Your task to perform on an android device: Clear the cart on newegg. Search for razer blade on newegg, select the first entry, and add it to the cart. Image 0: 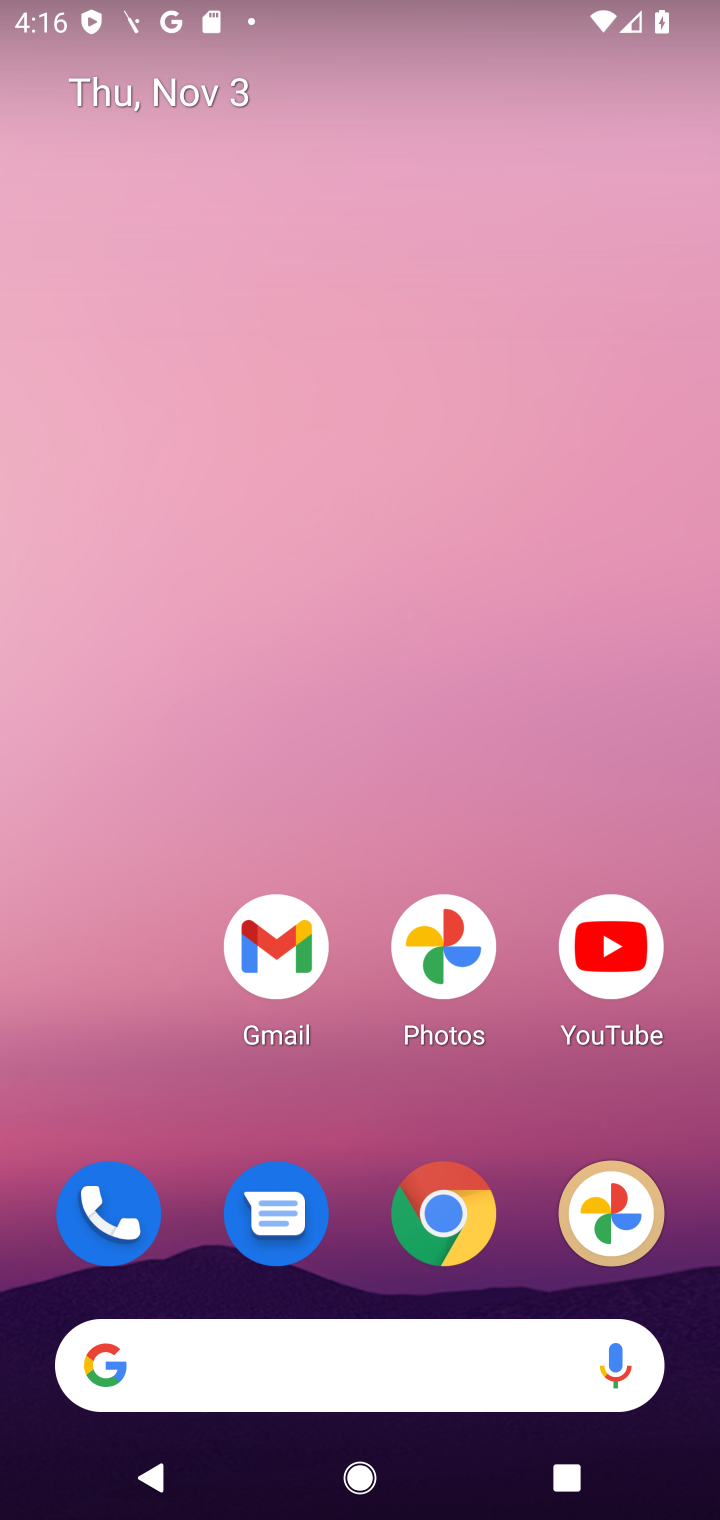
Step 0: click (447, 1226)
Your task to perform on an android device: Clear the cart on newegg. Search for razer blade on newegg, select the first entry, and add it to the cart. Image 1: 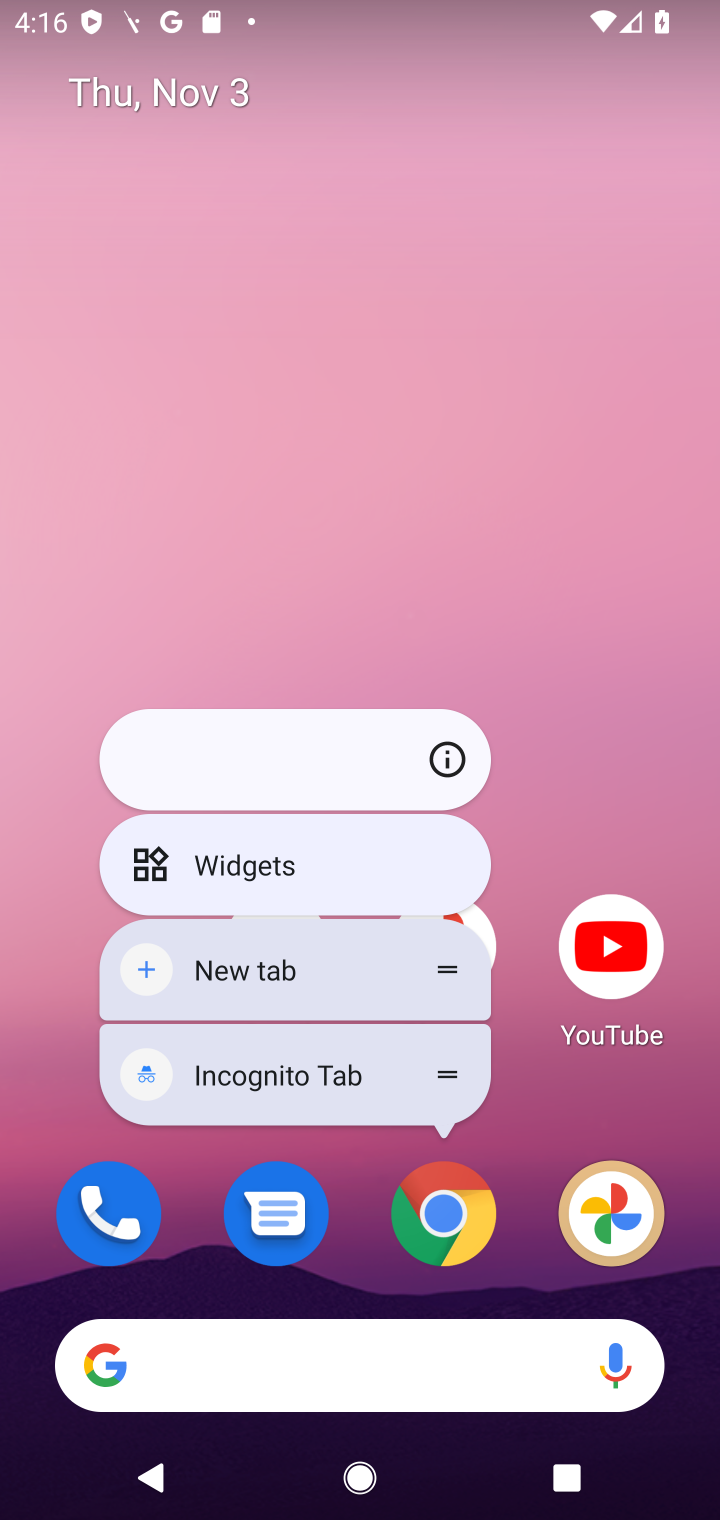
Step 1: click (447, 1226)
Your task to perform on an android device: Clear the cart on newegg. Search for razer blade on newegg, select the first entry, and add it to the cart. Image 2: 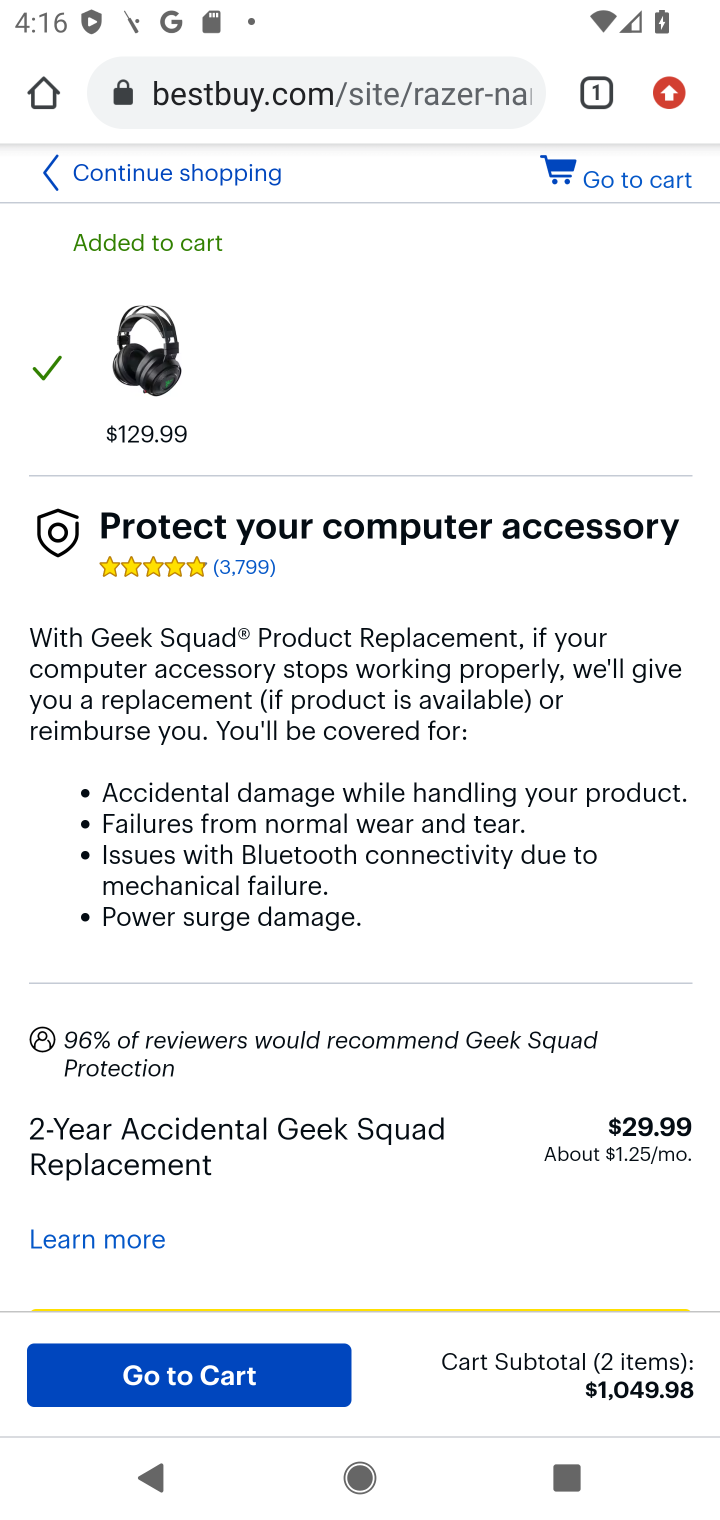
Step 2: click (272, 94)
Your task to perform on an android device: Clear the cart on newegg. Search for razer blade on newegg, select the first entry, and add it to the cart. Image 3: 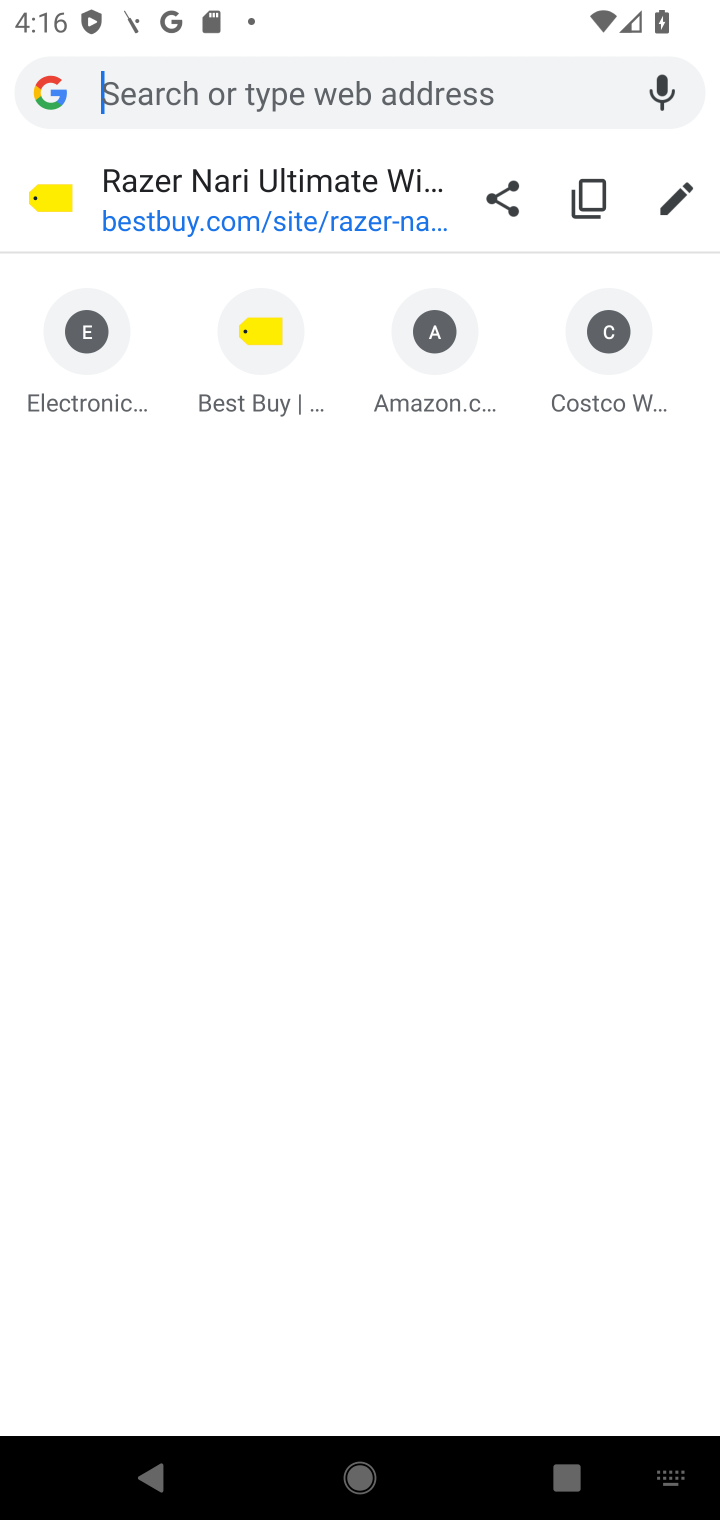
Step 3: type "newegg.com"
Your task to perform on an android device: Clear the cart on newegg. Search for razer blade on newegg, select the first entry, and add it to the cart. Image 4: 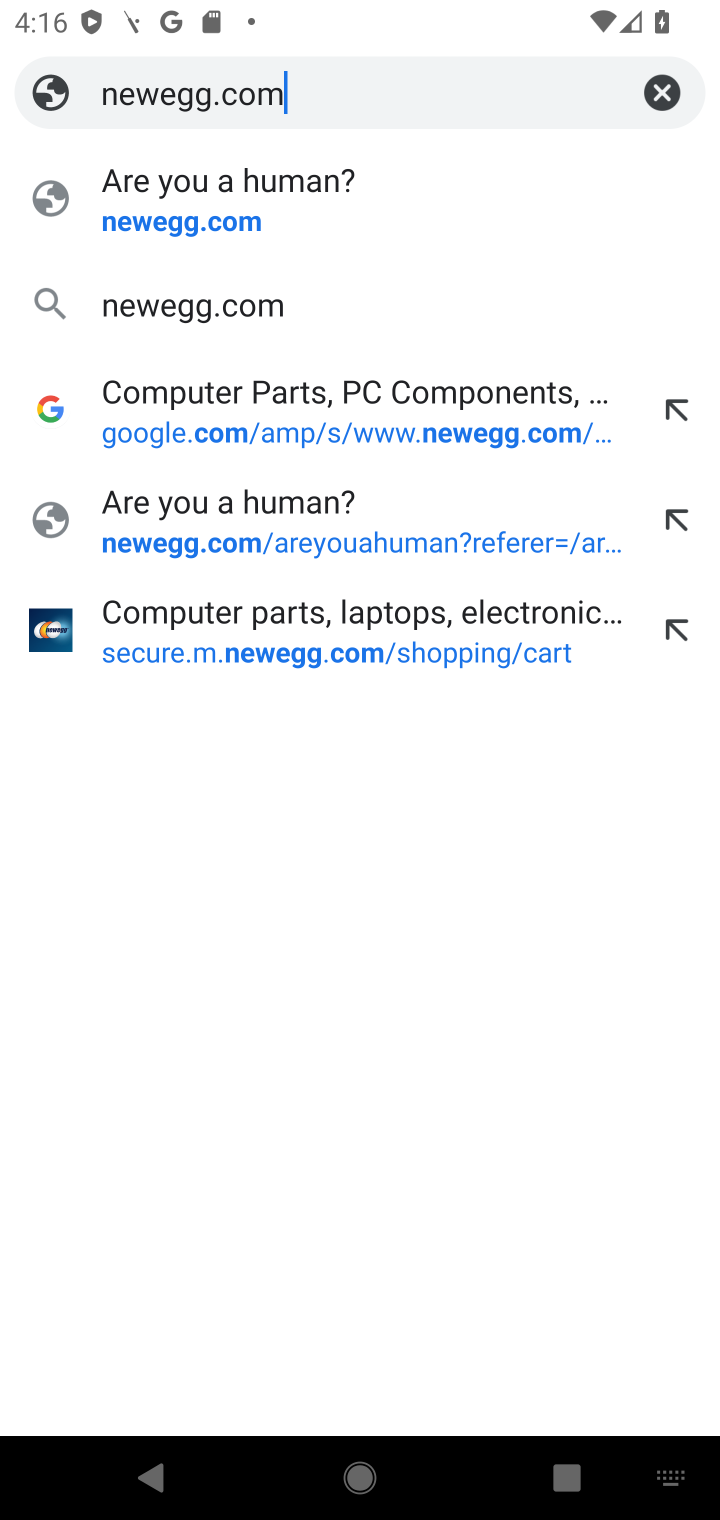
Step 4: click (127, 345)
Your task to perform on an android device: Clear the cart on newegg. Search for razer blade on newegg, select the first entry, and add it to the cart. Image 5: 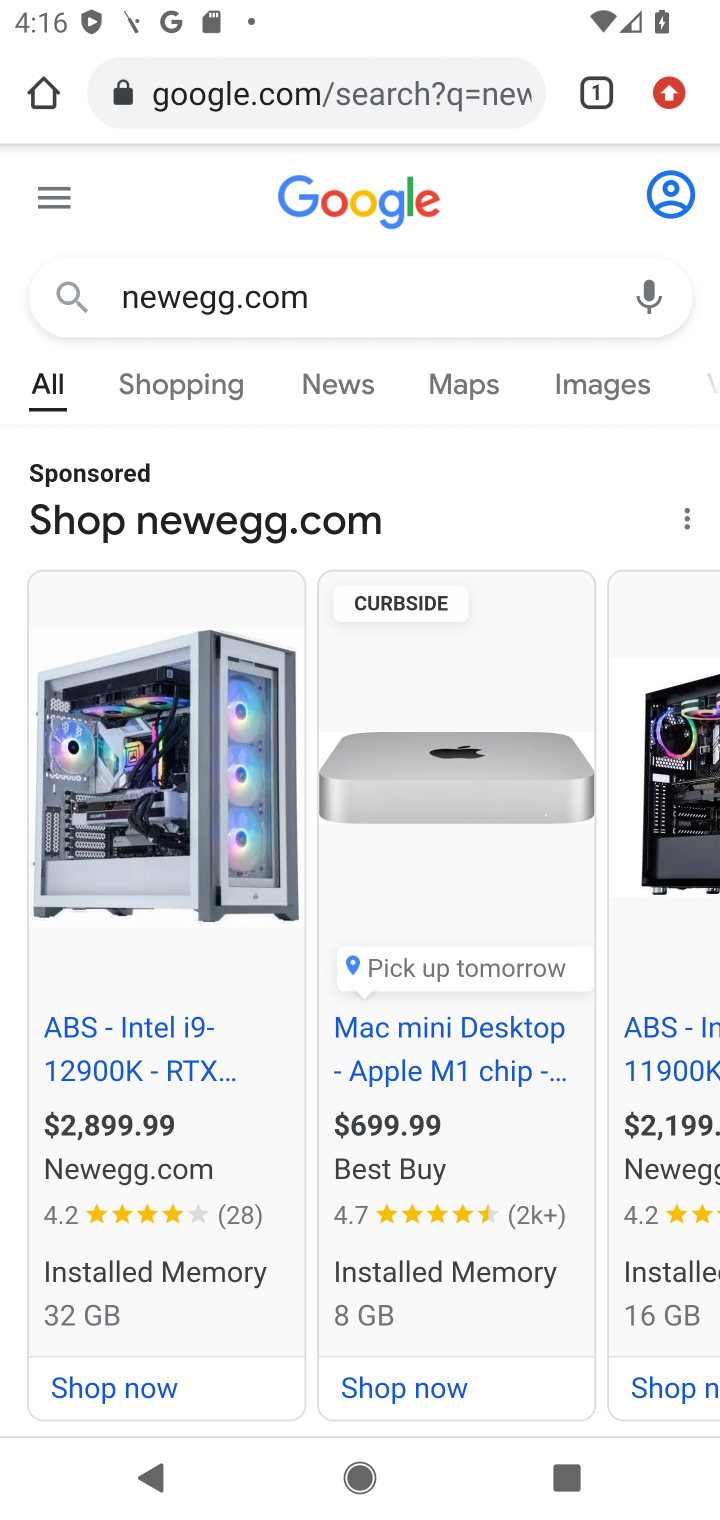
Step 5: drag from (371, 1030) to (373, 332)
Your task to perform on an android device: Clear the cart on newegg. Search for razer blade on newegg, select the first entry, and add it to the cart. Image 6: 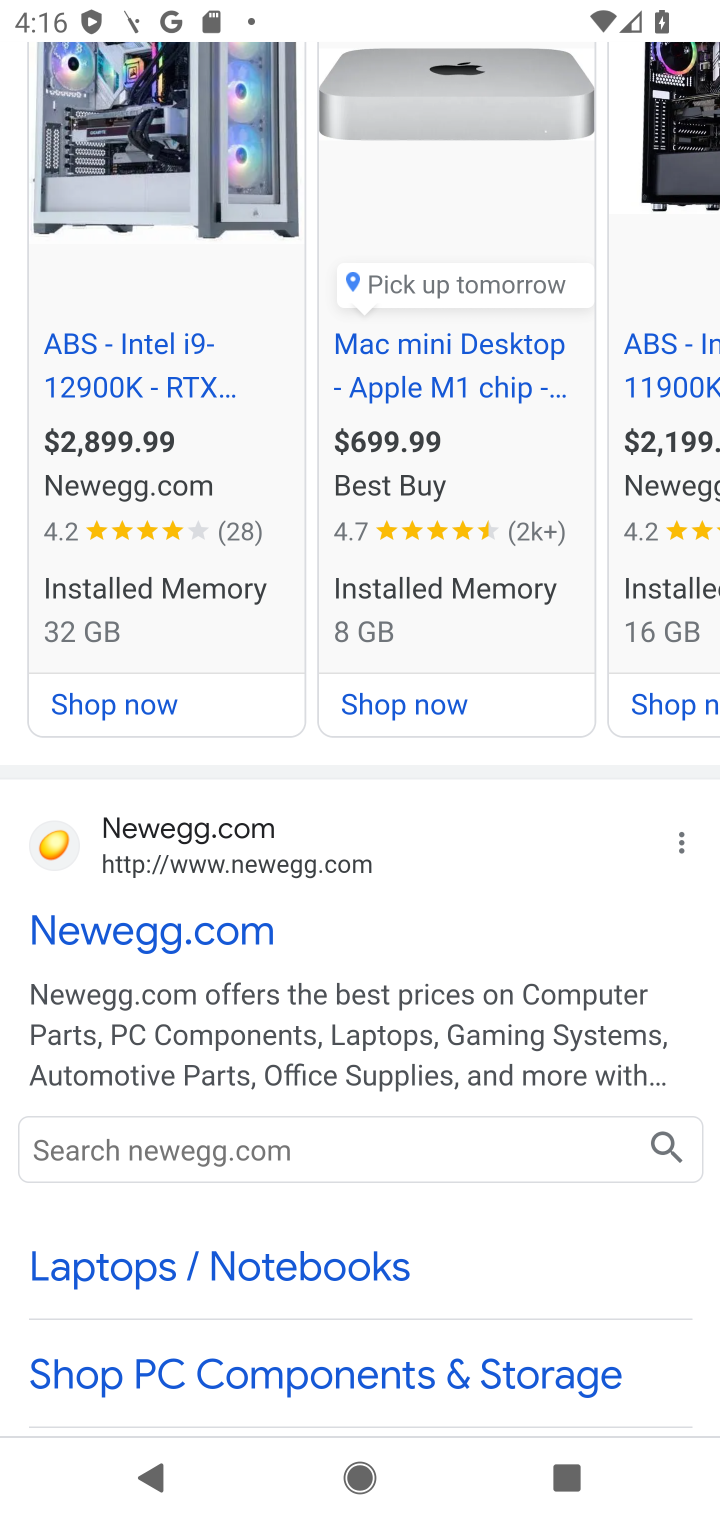
Step 6: click (225, 943)
Your task to perform on an android device: Clear the cart on newegg. Search for razer blade on newegg, select the first entry, and add it to the cart. Image 7: 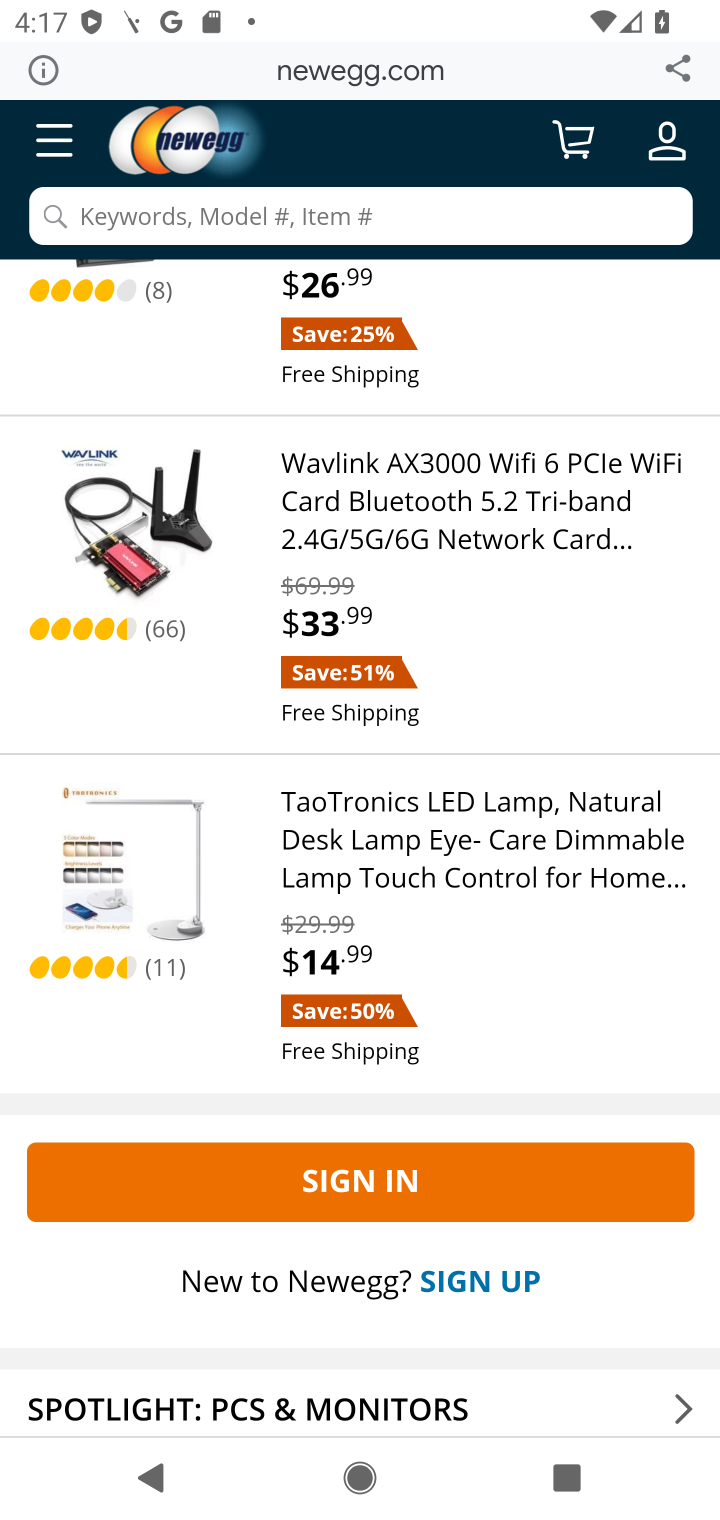
Step 7: click (576, 147)
Your task to perform on an android device: Clear the cart on newegg. Search for razer blade on newegg, select the first entry, and add it to the cart. Image 8: 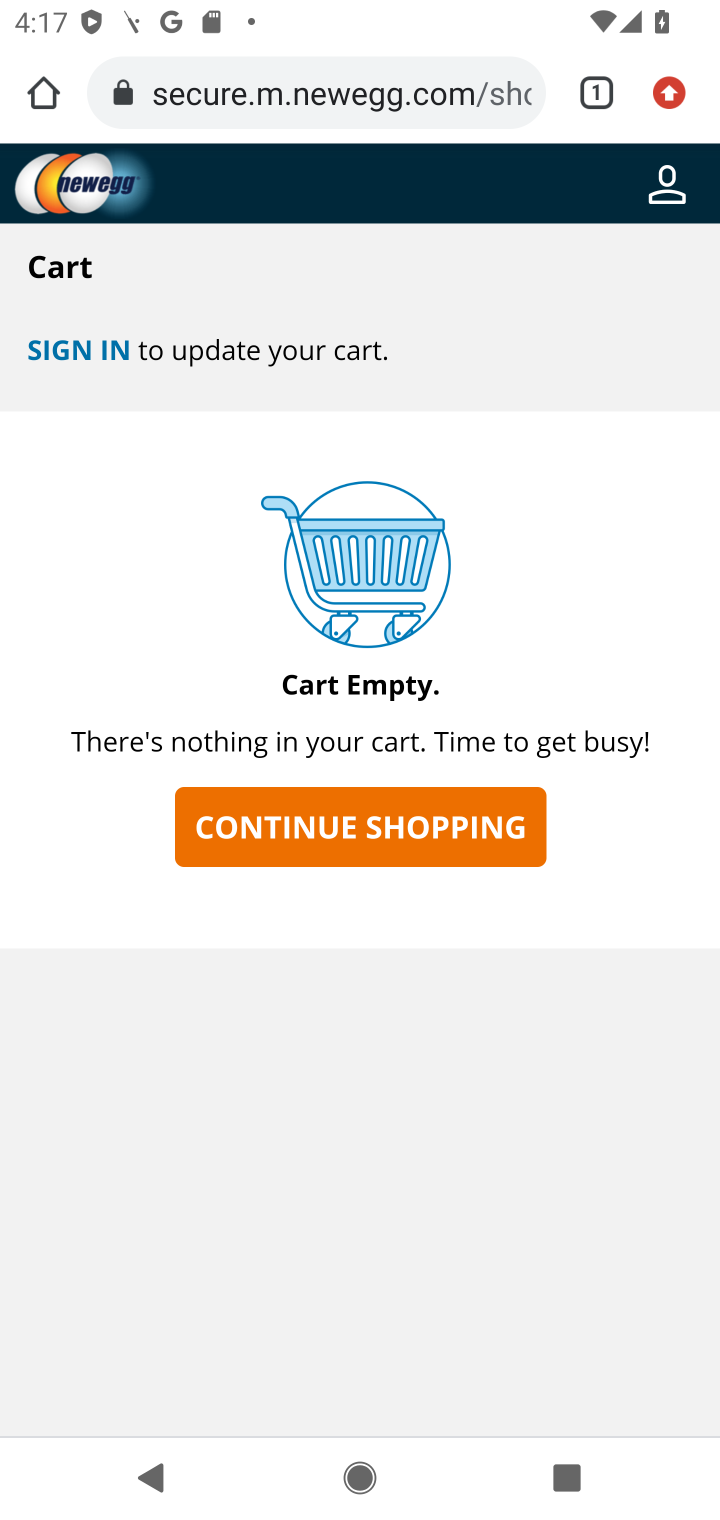
Step 8: drag from (497, 496) to (441, 1048)
Your task to perform on an android device: Clear the cart on newegg. Search for razer blade on newegg, select the first entry, and add it to the cart. Image 9: 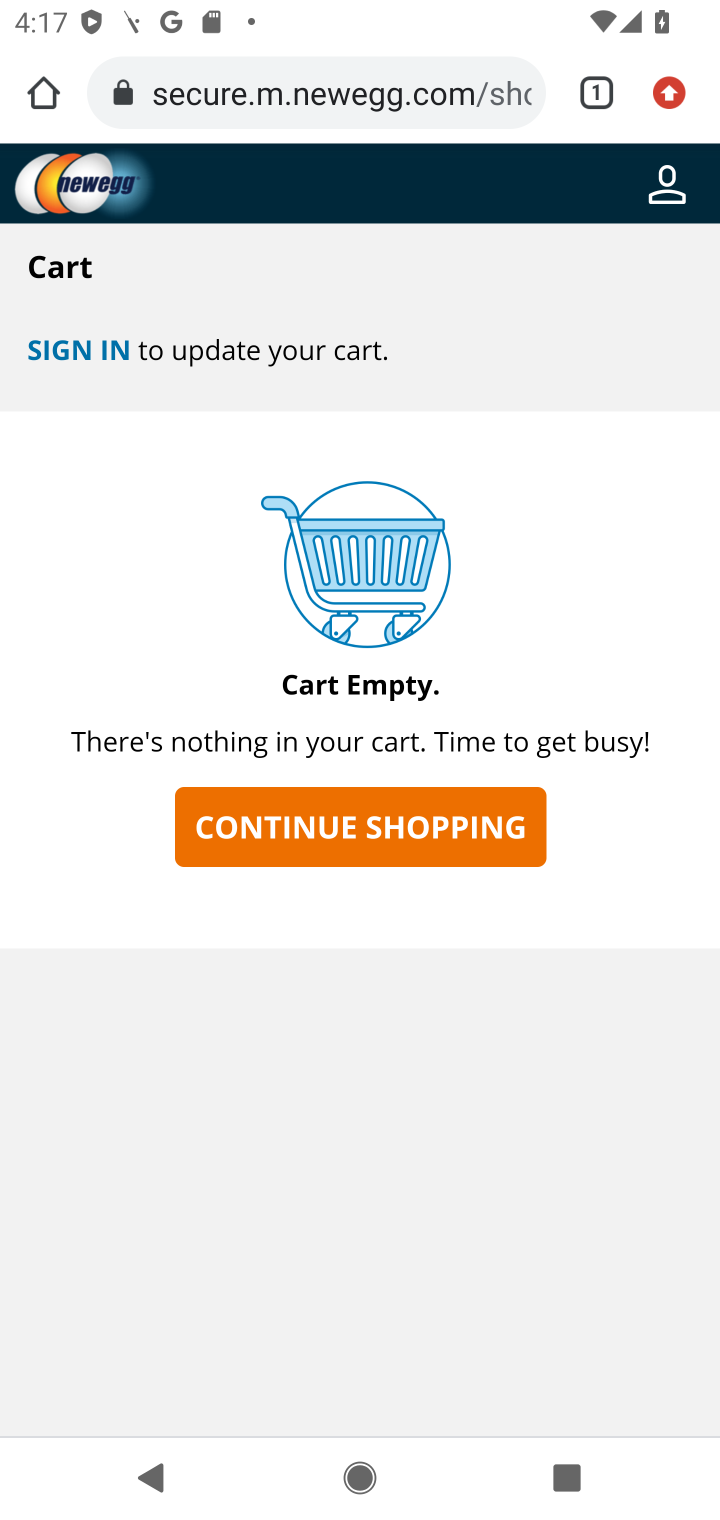
Step 9: press back button
Your task to perform on an android device: Clear the cart on newegg. Search for razer blade on newegg, select the first entry, and add it to the cart. Image 10: 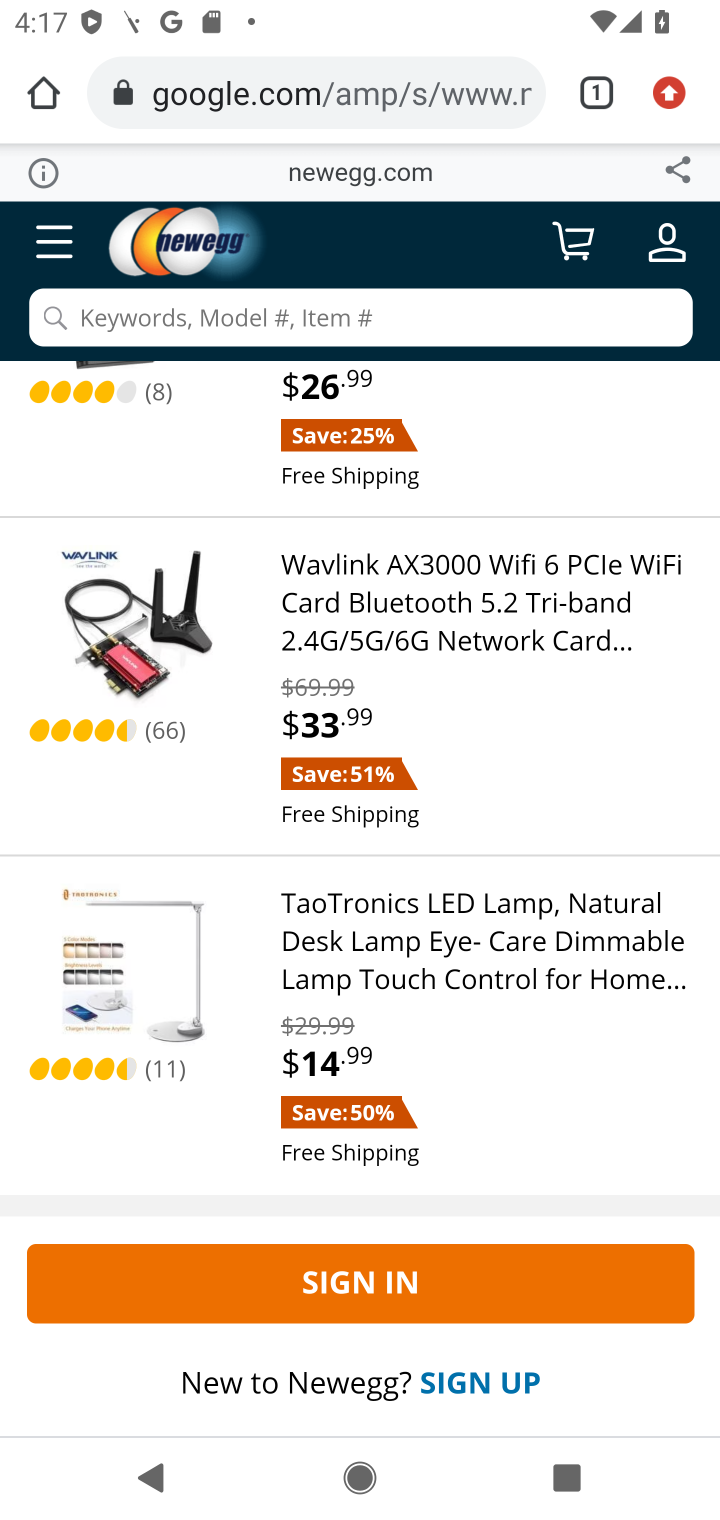
Step 10: click (127, 335)
Your task to perform on an android device: Clear the cart on newegg. Search for razer blade on newegg, select the first entry, and add it to the cart. Image 11: 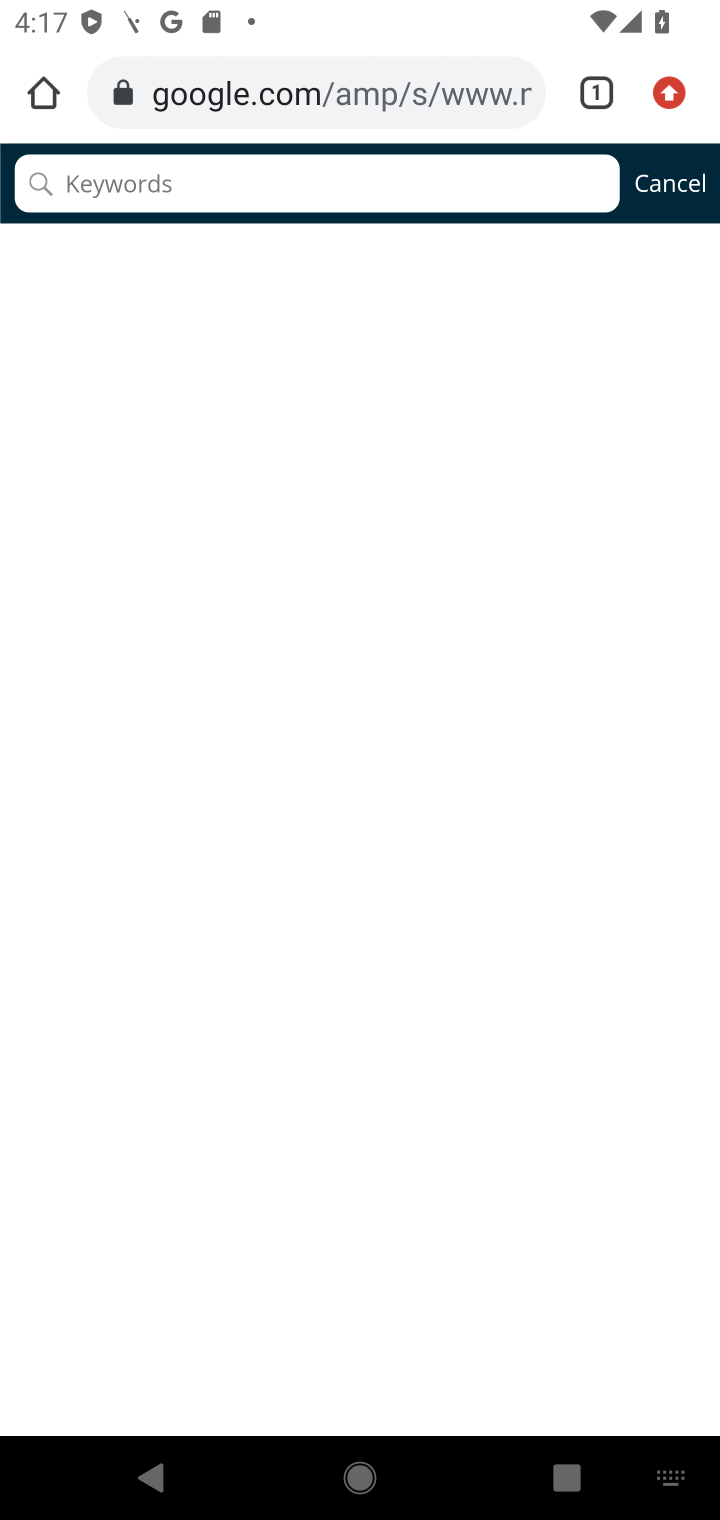
Step 11: type "razer blade"
Your task to perform on an android device: Clear the cart on newegg. Search for razer blade on newegg, select the first entry, and add it to the cart. Image 12: 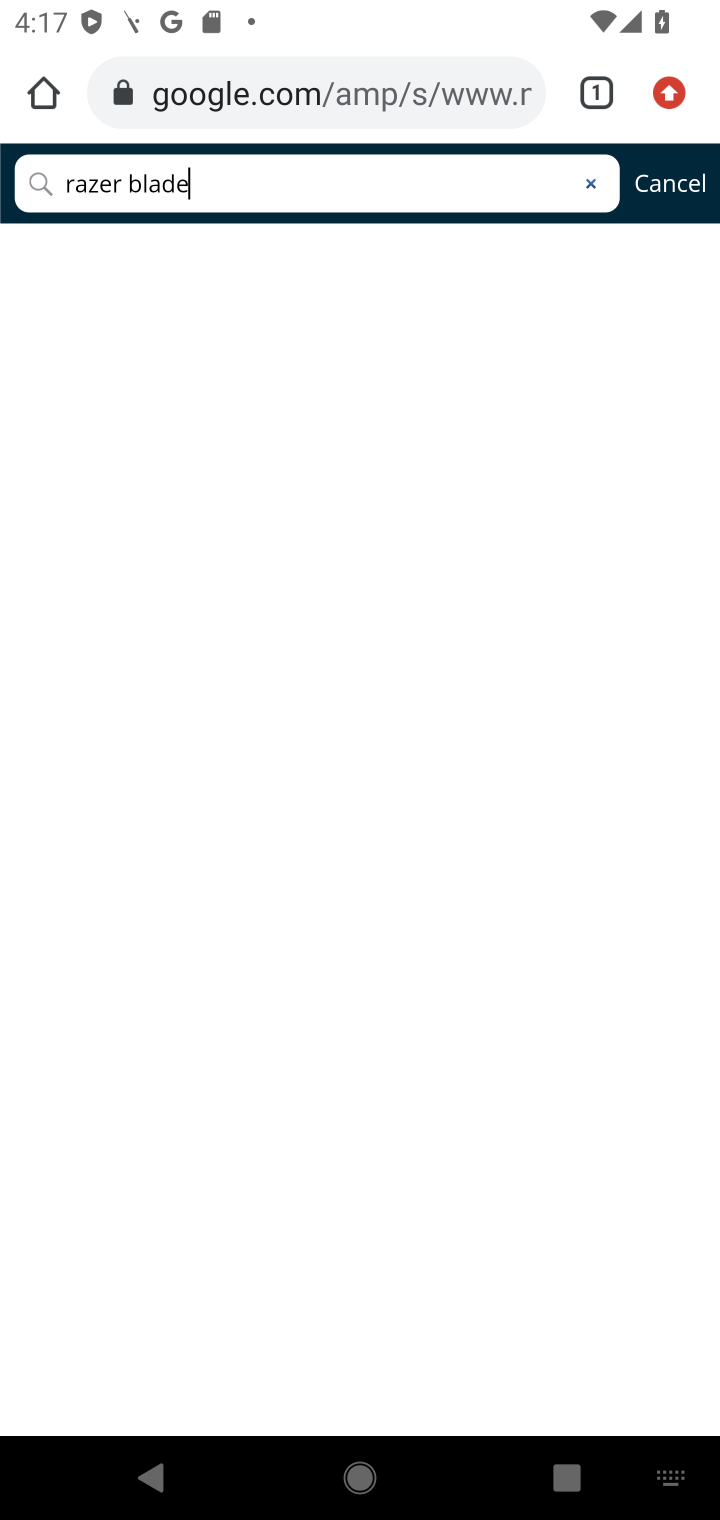
Step 12: click (36, 190)
Your task to perform on an android device: Clear the cart on newegg. Search for razer blade on newegg, select the first entry, and add it to the cart. Image 13: 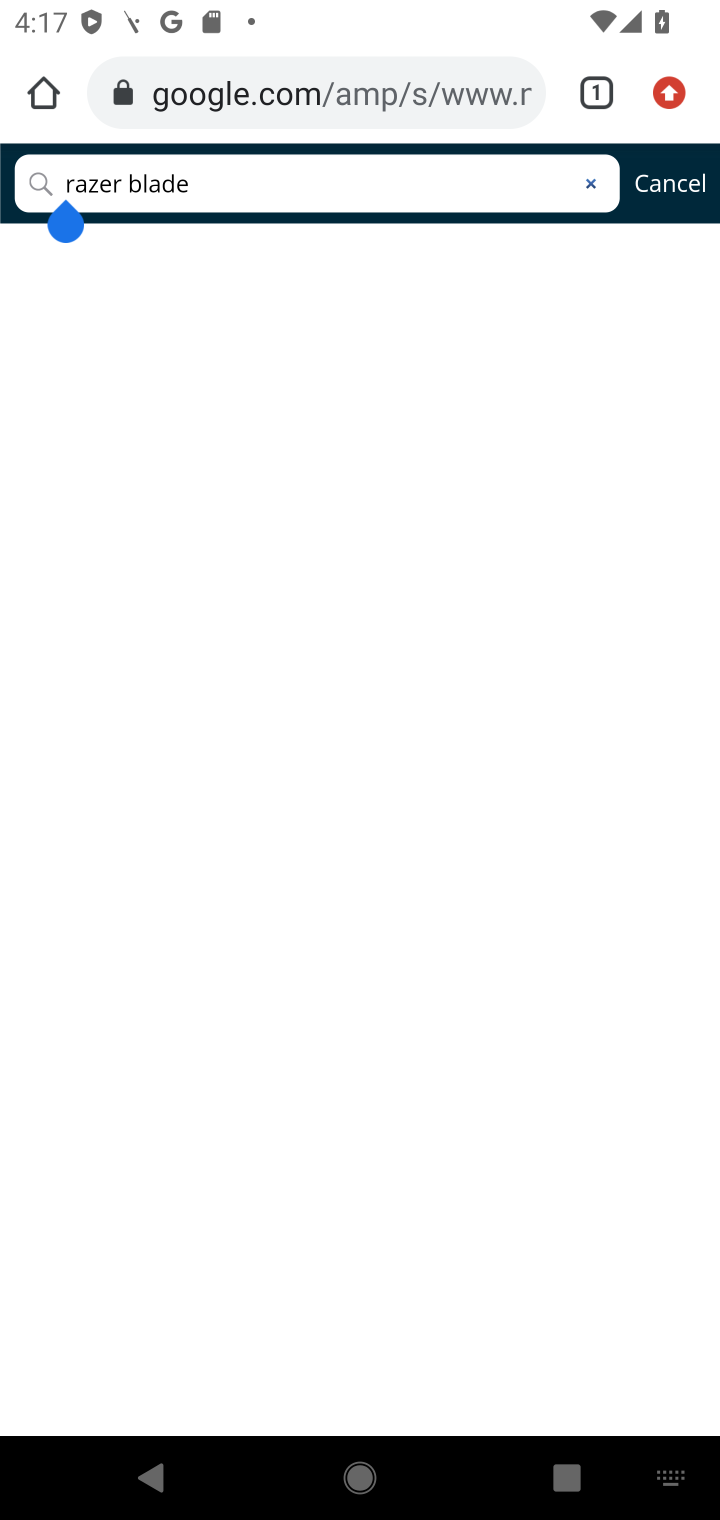
Step 13: task complete